Your task to perform on an android device: Go to privacy settings Image 0: 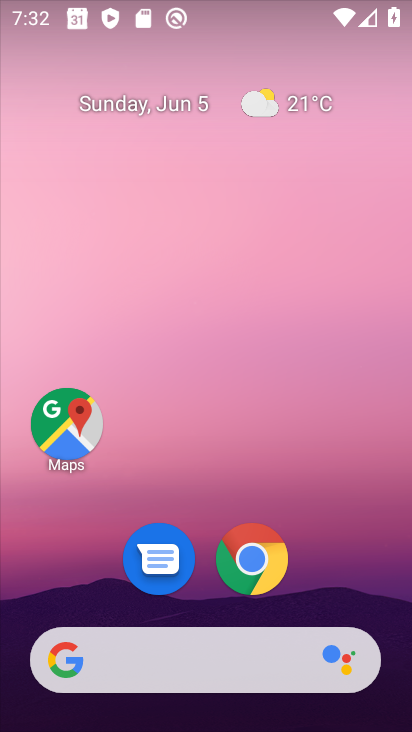
Step 0: drag from (248, 605) to (145, 97)
Your task to perform on an android device: Go to privacy settings Image 1: 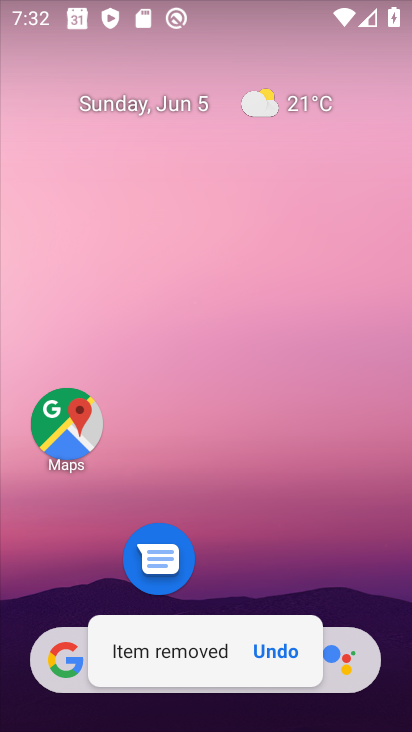
Step 1: drag from (237, 616) to (111, 1)
Your task to perform on an android device: Go to privacy settings Image 2: 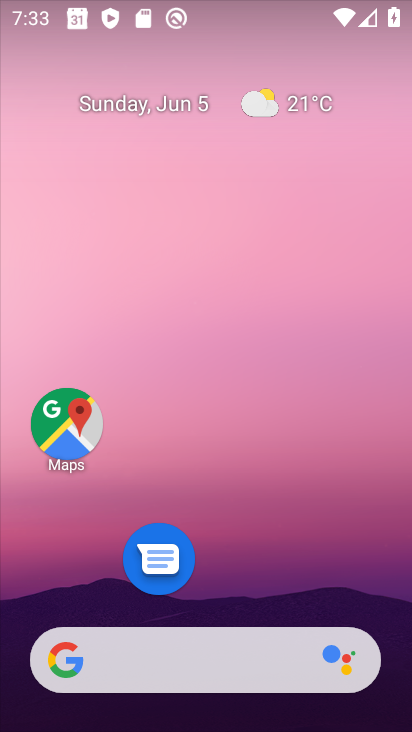
Step 2: drag from (185, 618) to (79, 38)
Your task to perform on an android device: Go to privacy settings Image 3: 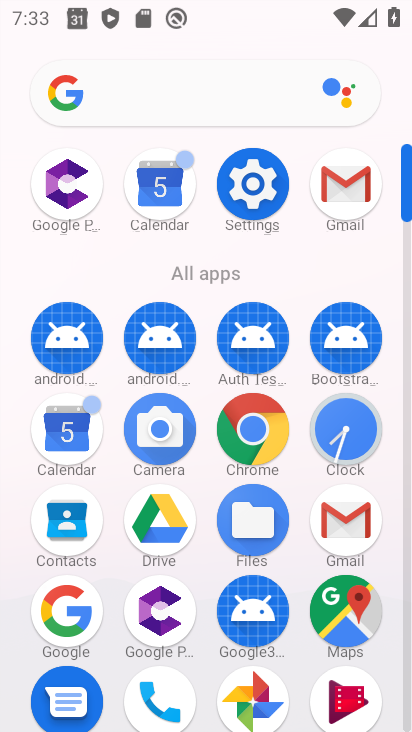
Step 3: click (262, 192)
Your task to perform on an android device: Go to privacy settings Image 4: 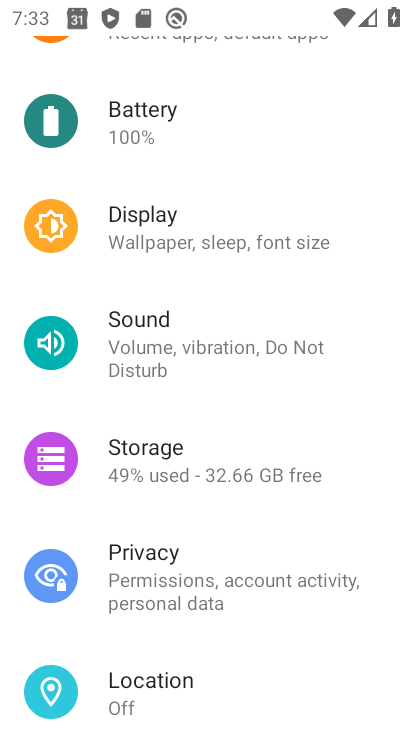
Step 4: click (151, 575)
Your task to perform on an android device: Go to privacy settings Image 5: 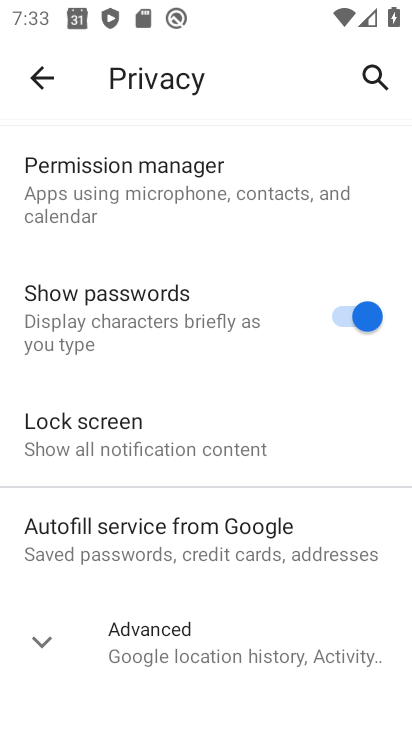
Step 5: task complete